Your task to perform on an android device: uninstall "LiveIn - Share Your Moment" Image 0: 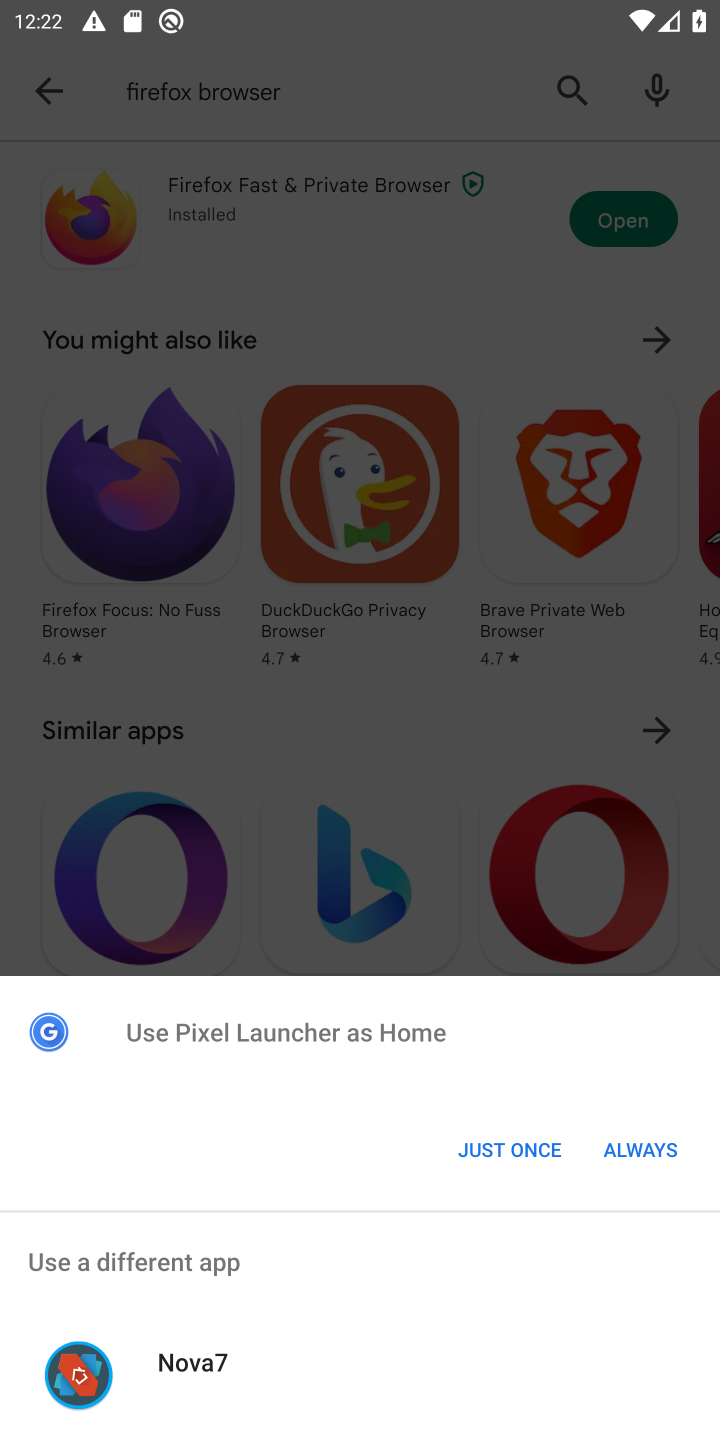
Step 0: click (605, 1145)
Your task to perform on an android device: uninstall "LiveIn - Share Your Moment" Image 1: 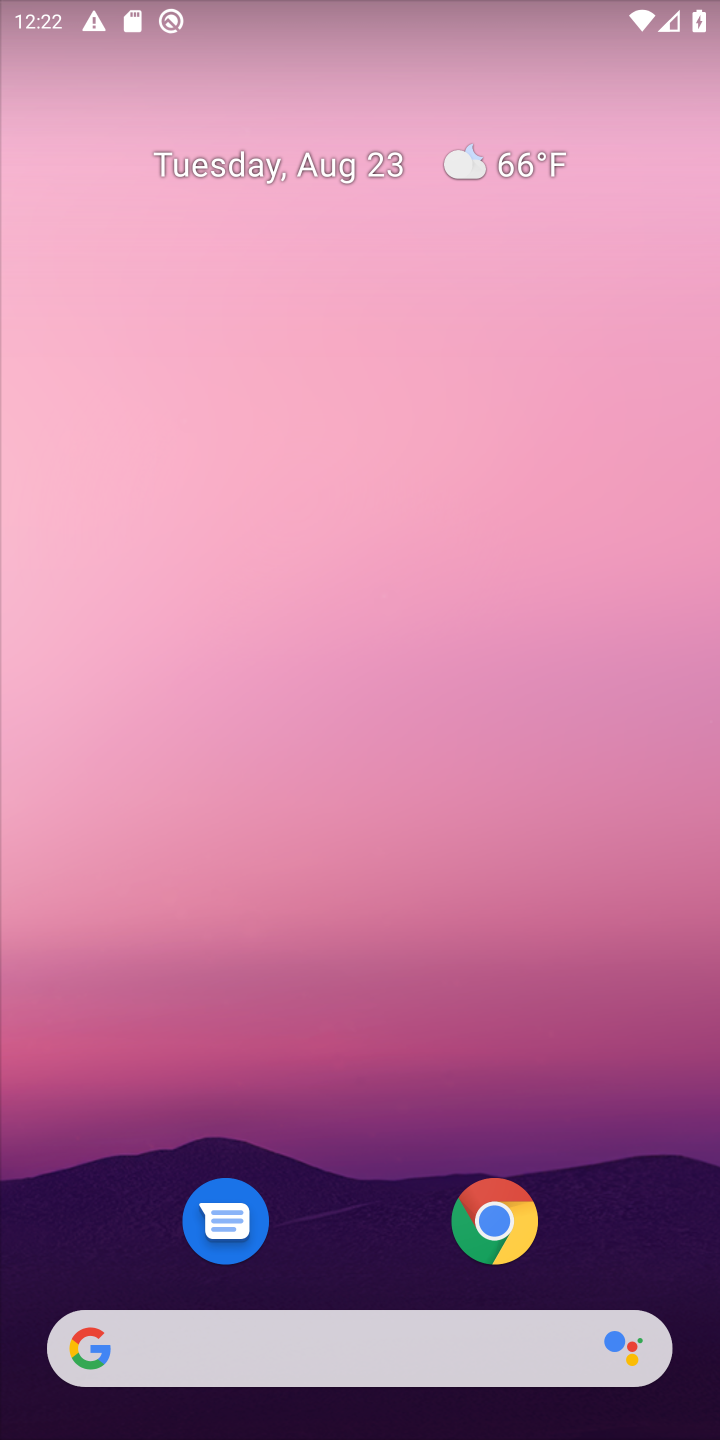
Step 1: drag from (368, 919) to (459, 194)
Your task to perform on an android device: uninstall "LiveIn - Share Your Moment" Image 2: 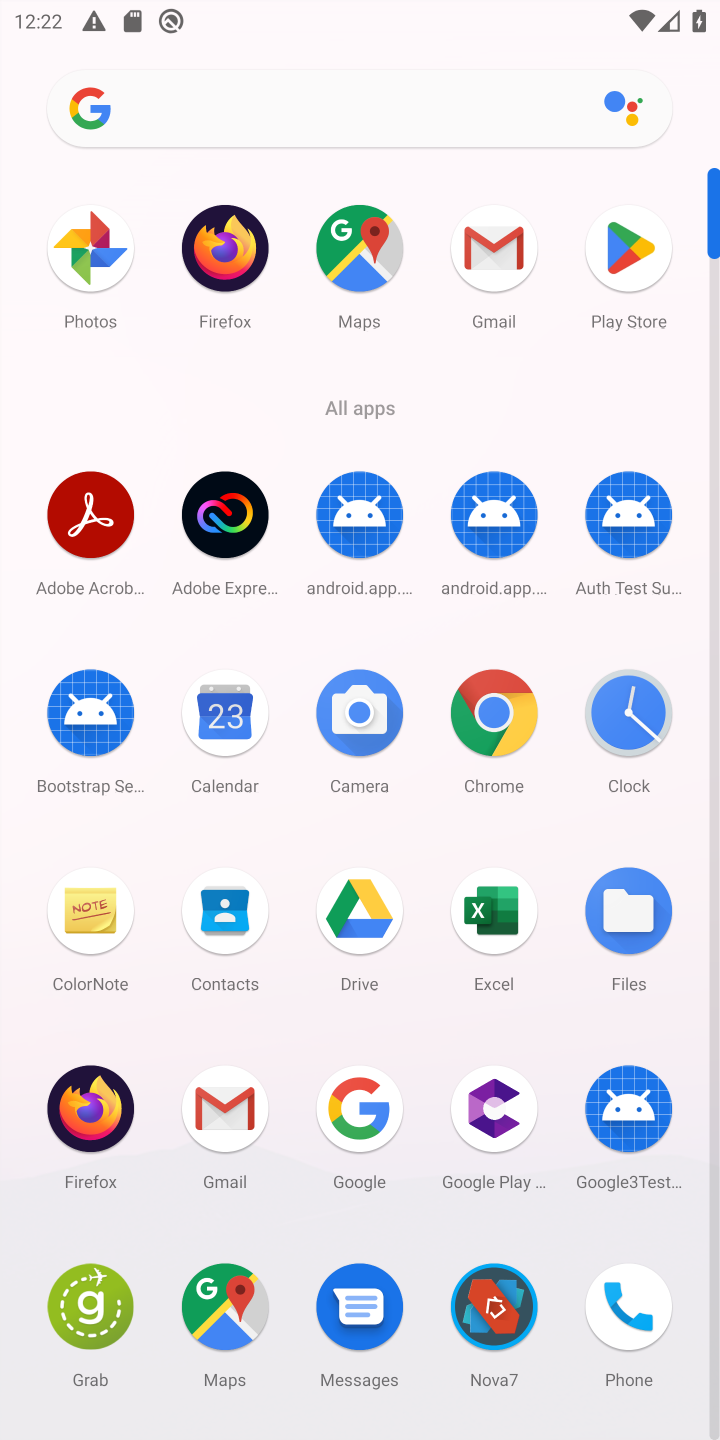
Step 2: click (629, 234)
Your task to perform on an android device: uninstall "LiveIn - Share Your Moment" Image 3: 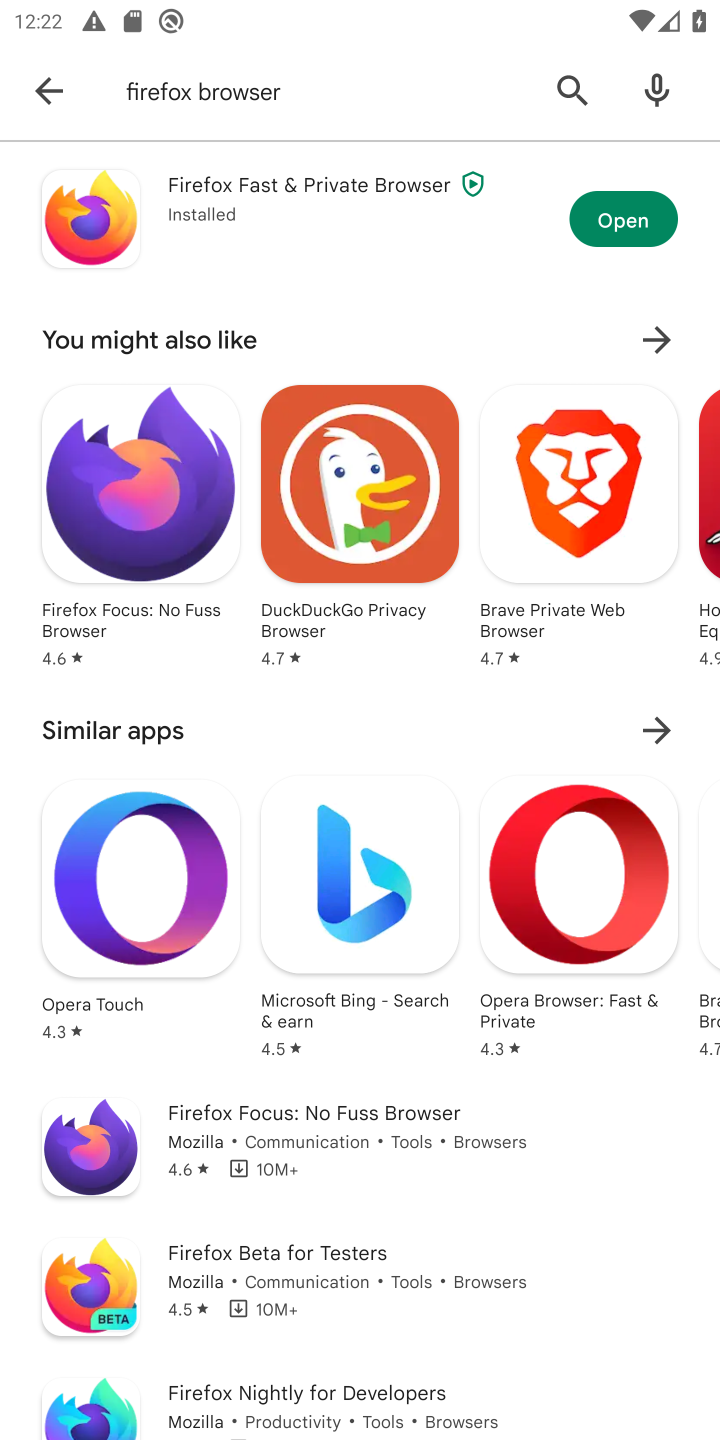
Step 3: click (568, 76)
Your task to perform on an android device: uninstall "LiveIn - Share Your Moment" Image 4: 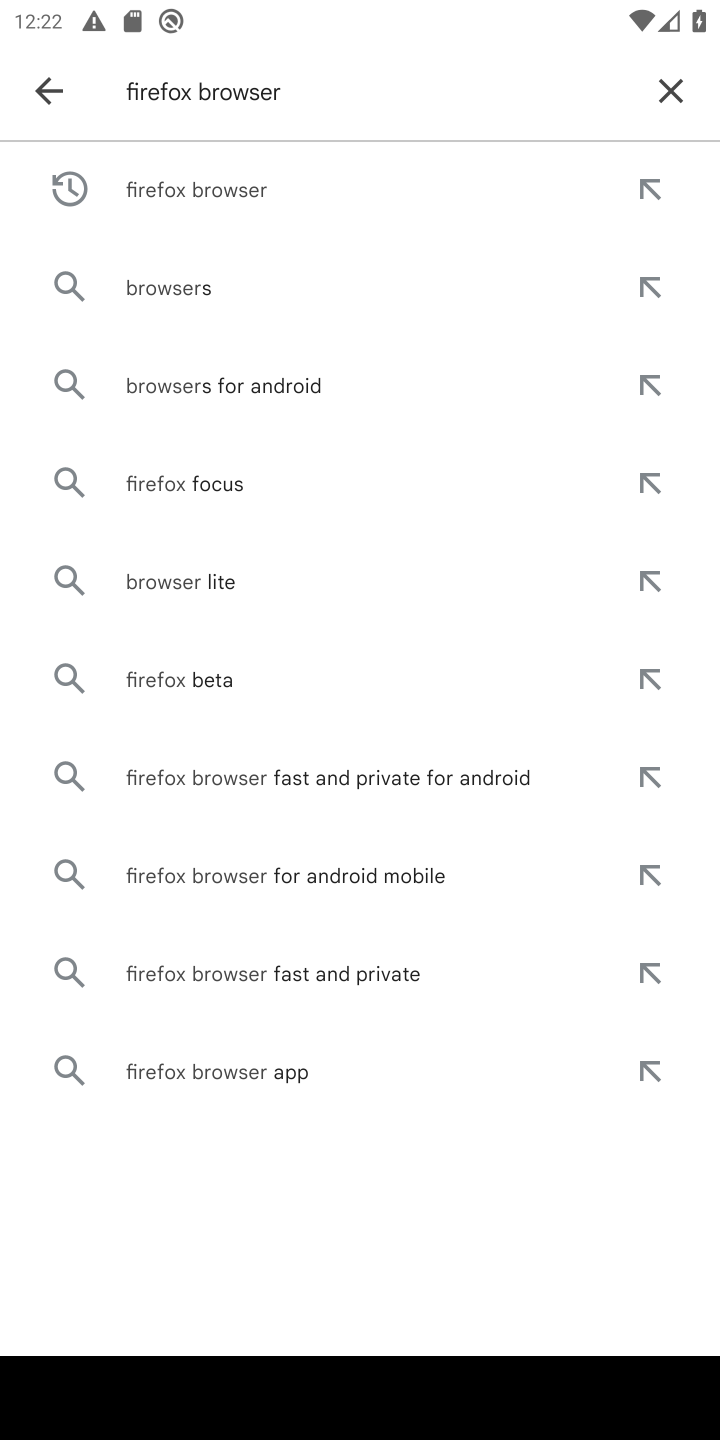
Step 4: click (660, 83)
Your task to perform on an android device: uninstall "LiveIn - Share Your Moment" Image 5: 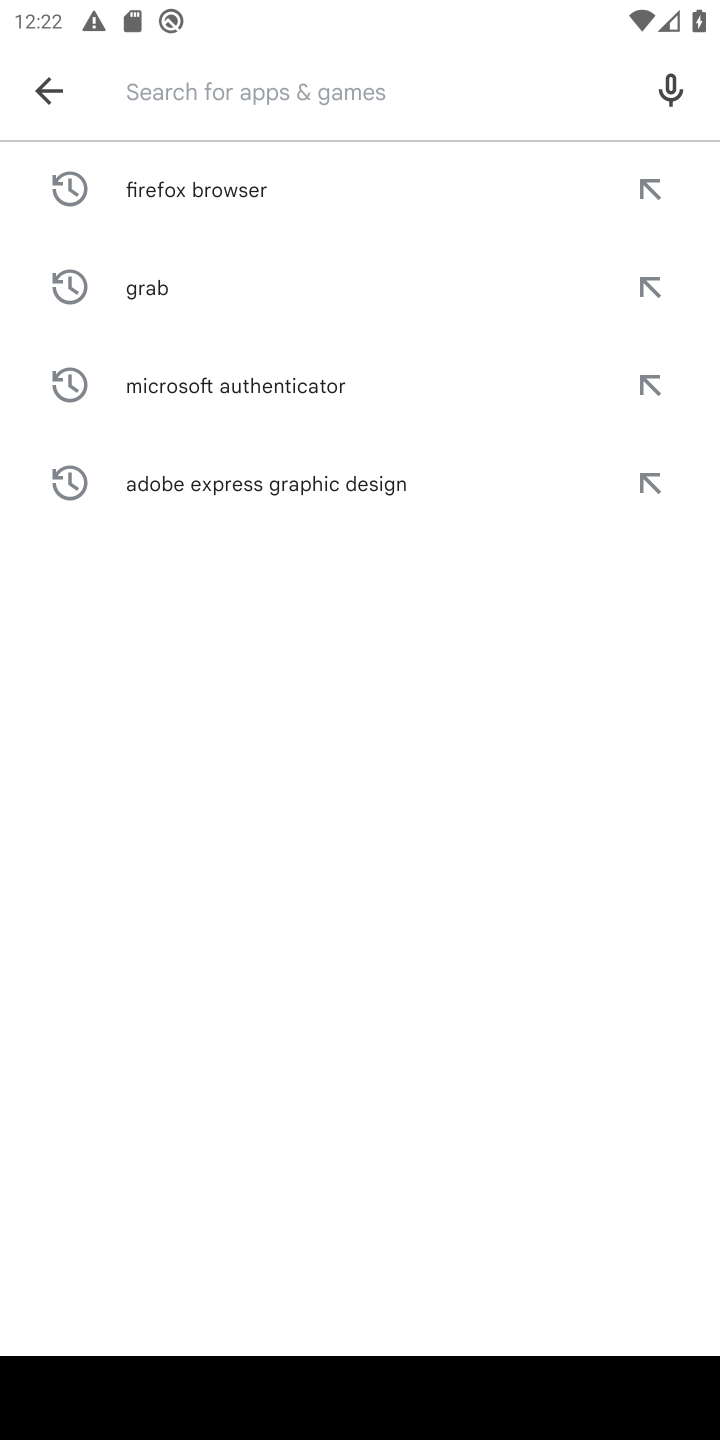
Step 5: click (162, 91)
Your task to perform on an android device: uninstall "LiveIn - Share Your Moment" Image 6: 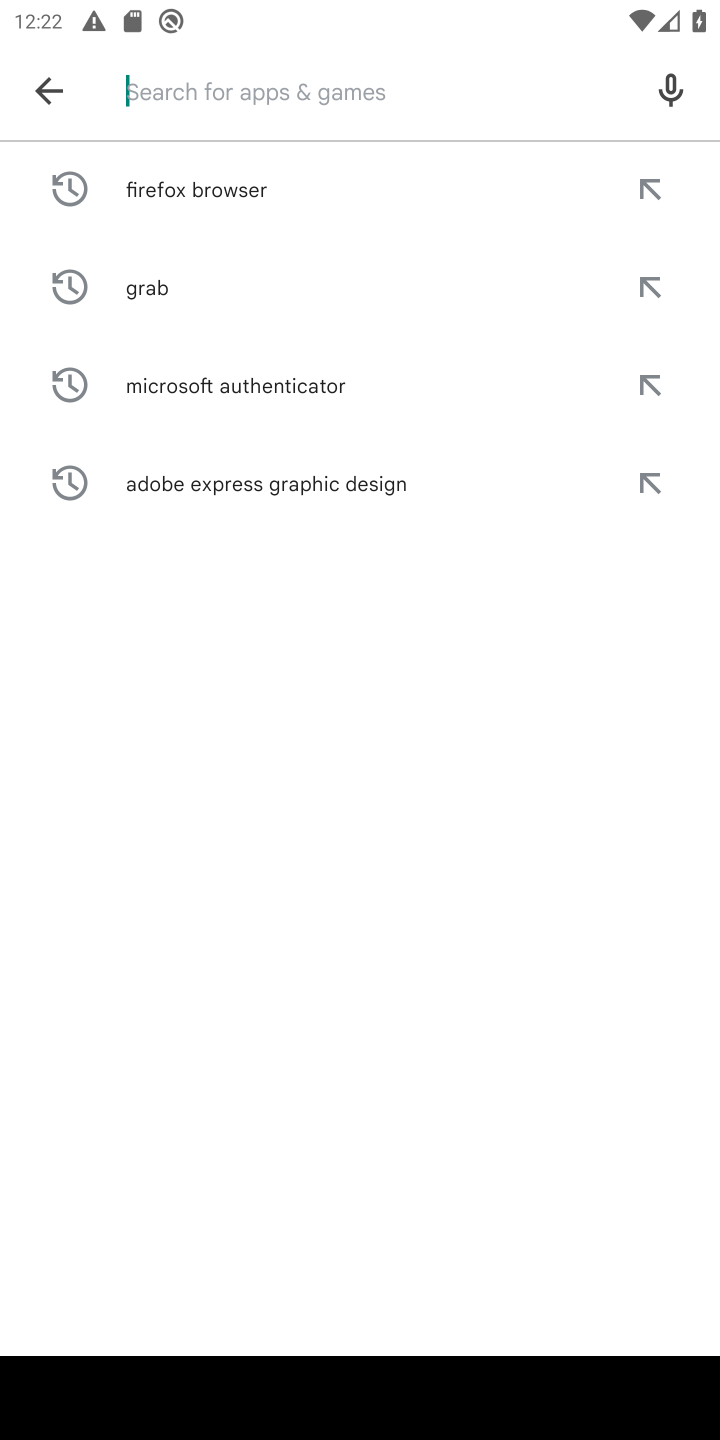
Step 6: type "LiveIn"
Your task to perform on an android device: uninstall "LiveIn - Share Your Moment" Image 7: 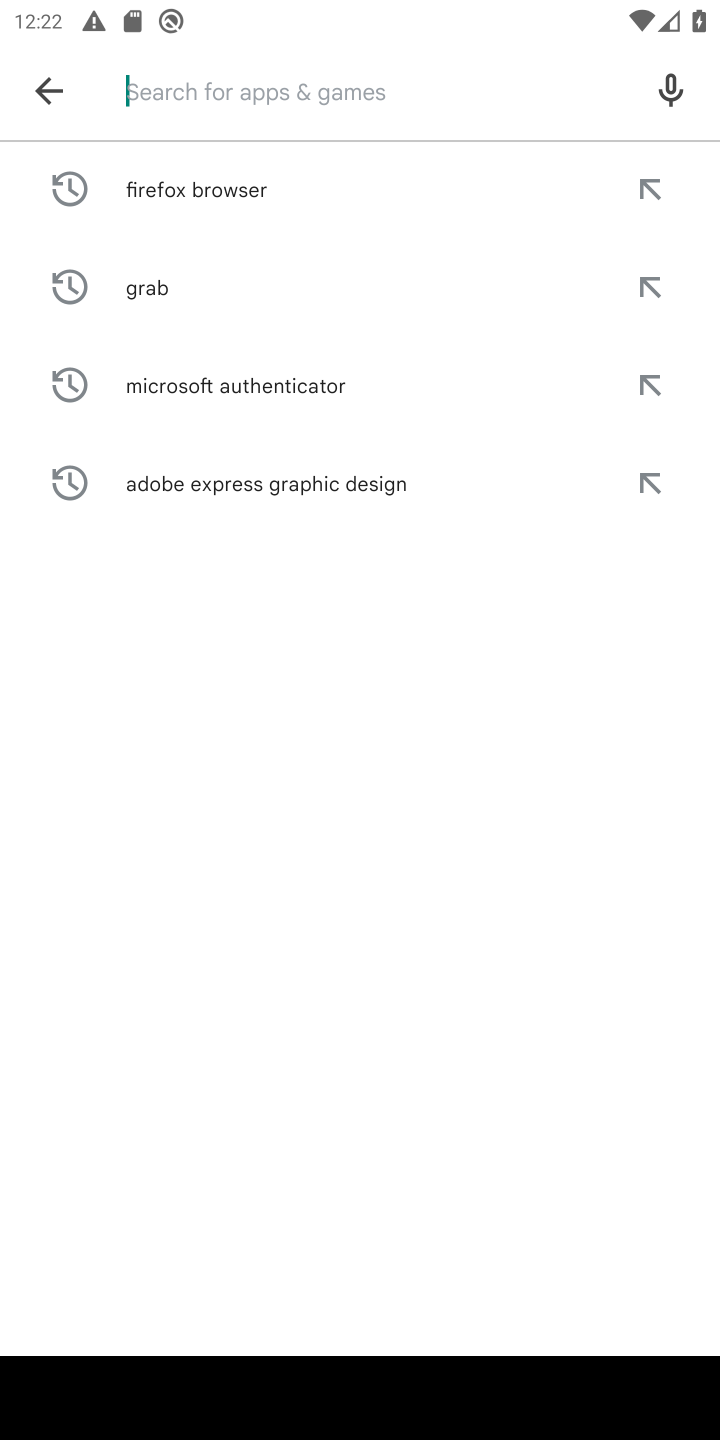
Step 7: click (500, 983)
Your task to perform on an android device: uninstall "LiveIn - Share Your Moment" Image 8: 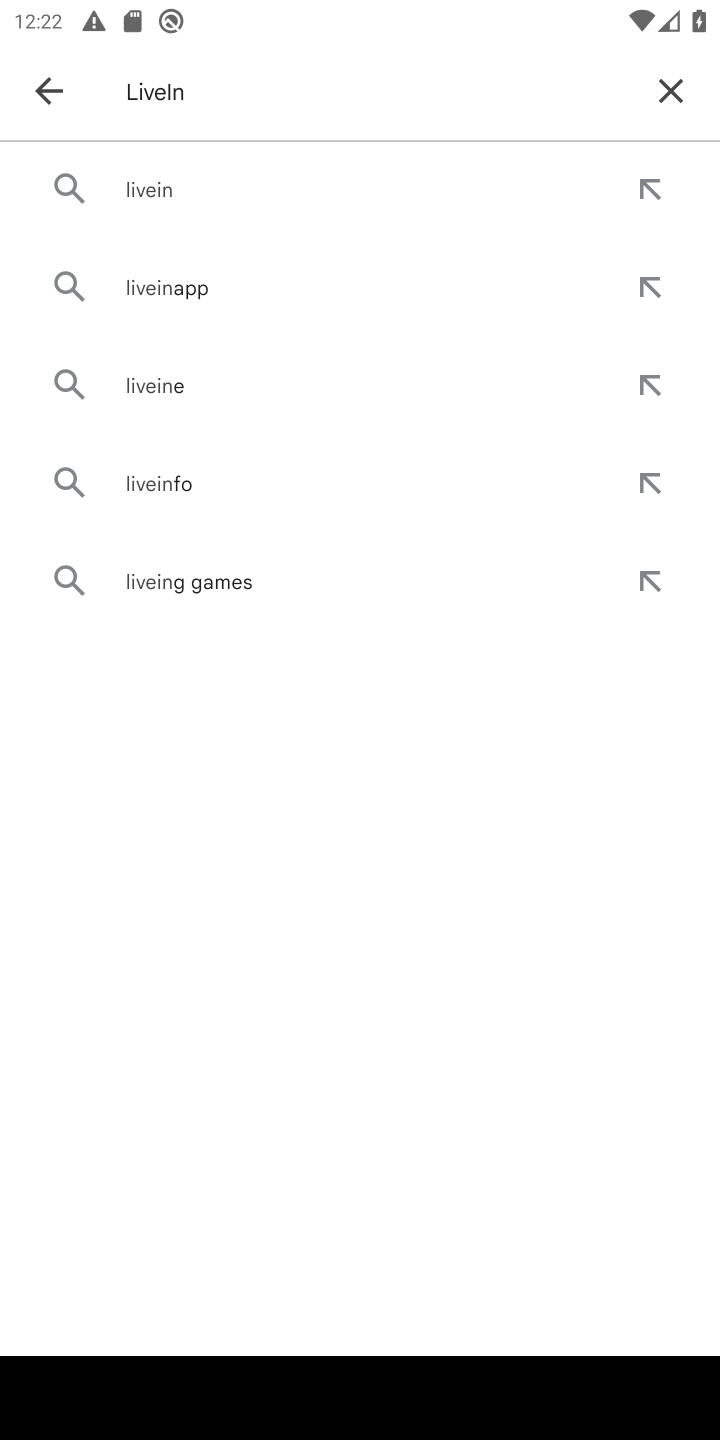
Step 8: click (196, 179)
Your task to perform on an android device: uninstall "LiveIn - Share Your Moment" Image 9: 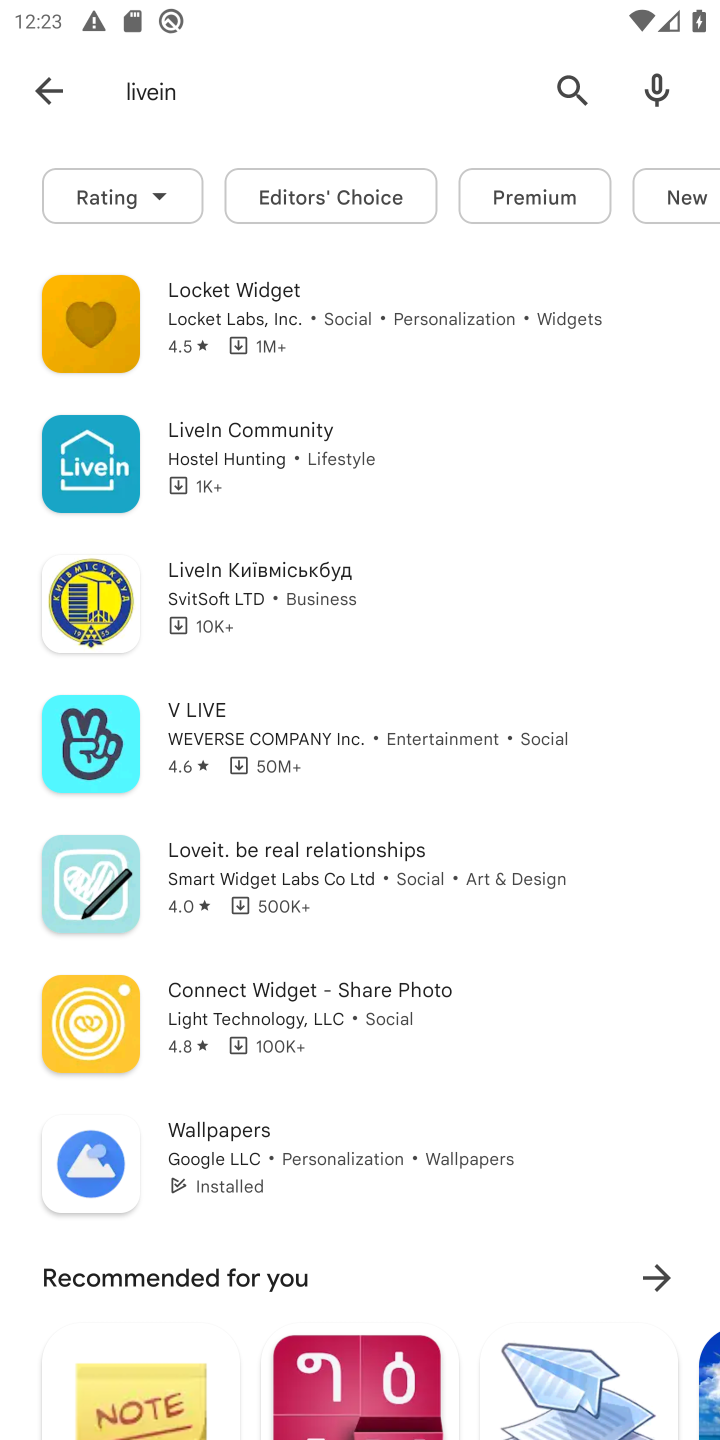
Step 9: click (311, 448)
Your task to perform on an android device: uninstall "LiveIn - Share Your Moment" Image 10: 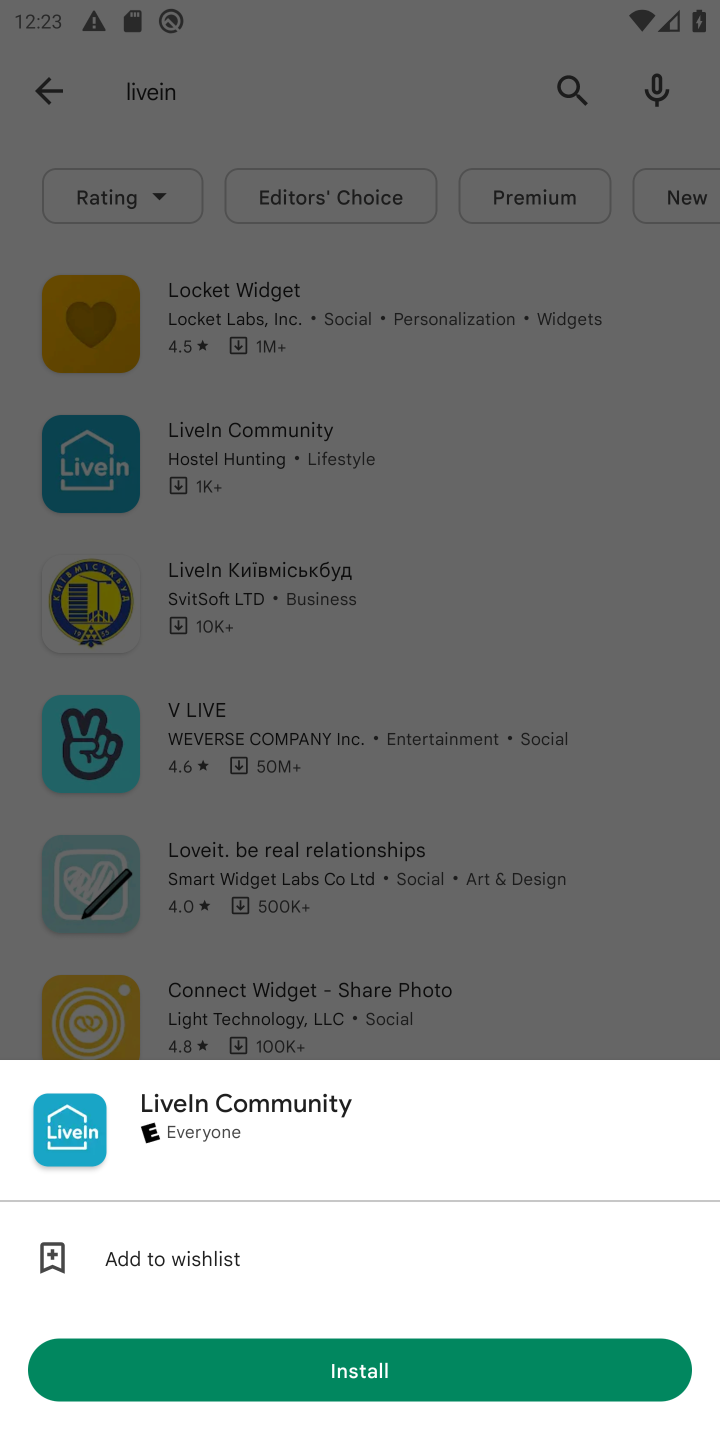
Step 10: task complete